Your task to perform on an android device: Go to sound settings Image 0: 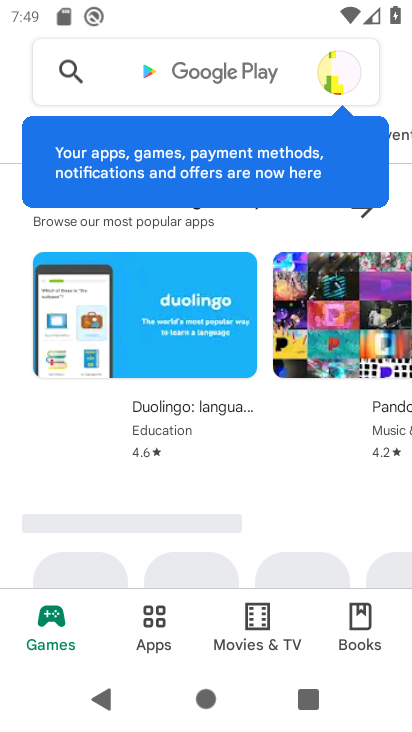
Step 0: press home button
Your task to perform on an android device: Go to sound settings Image 1: 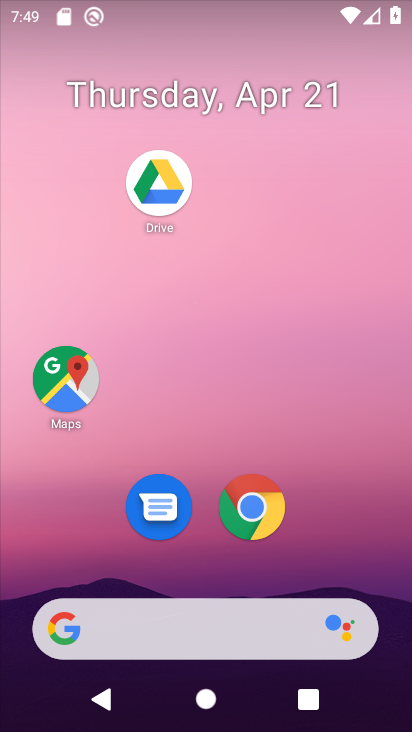
Step 1: drag from (367, 533) to (369, 119)
Your task to perform on an android device: Go to sound settings Image 2: 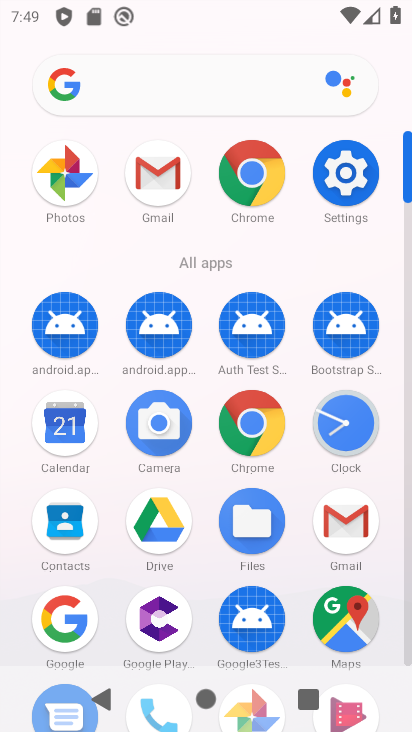
Step 2: click (340, 190)
Your task to perform on an android device: Go to sound settings Image 3: 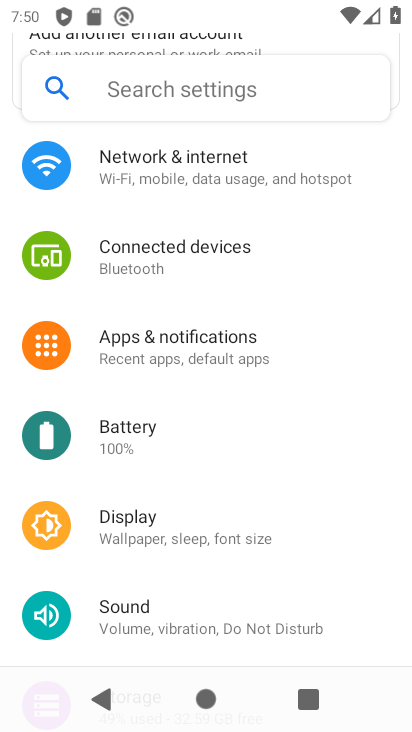
Step 3: drag from (336, 537) to (337, 351)
Your task to perform on an android device: Go to sound settings Image 4: 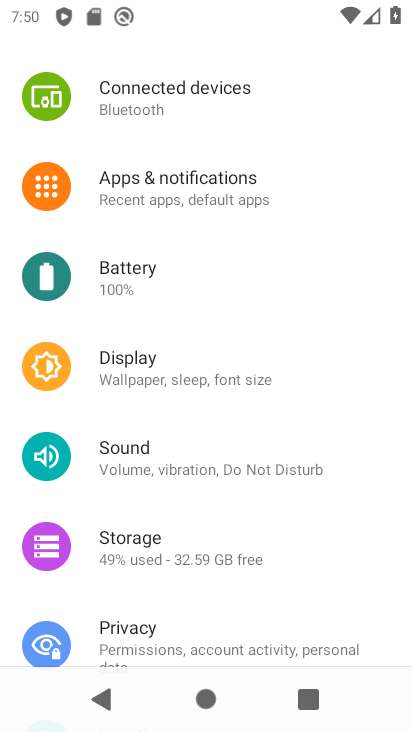
Step 4: drag from (343, 589) to (345, 387)
Your task to perform on an android device: Go to sound settings Image 5: 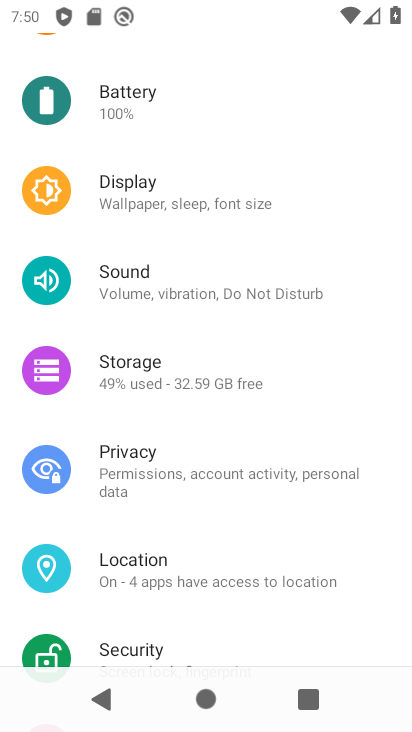
Step 5: drag from (353, 598) to (376, 357)
Your task to perform on an android device: Go to sound settings Image 6: 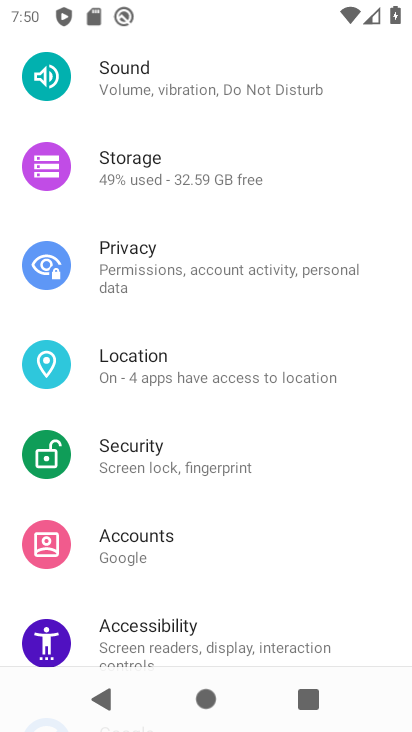
Step 6: drag from (359, 571) to (384, 273)
Your task to perform on an android device: Go to sound settings Image 7: 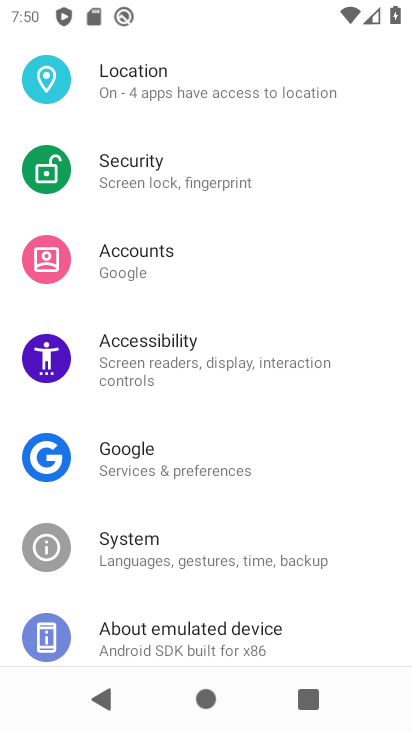
Step 7: drag from (380, 226) to (379, 489)
Your task to perform on an android device: Go to sound settings Image 8: 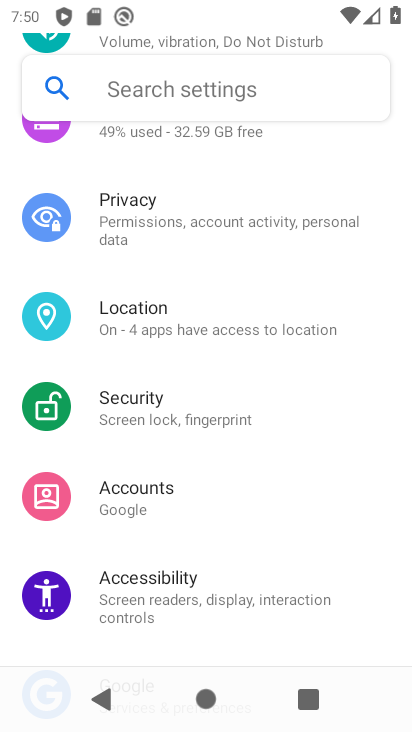
Step 8: drag from (376, 283) to (373, 467)
Your task to perform on an android device: Go to sound settings Image 9: 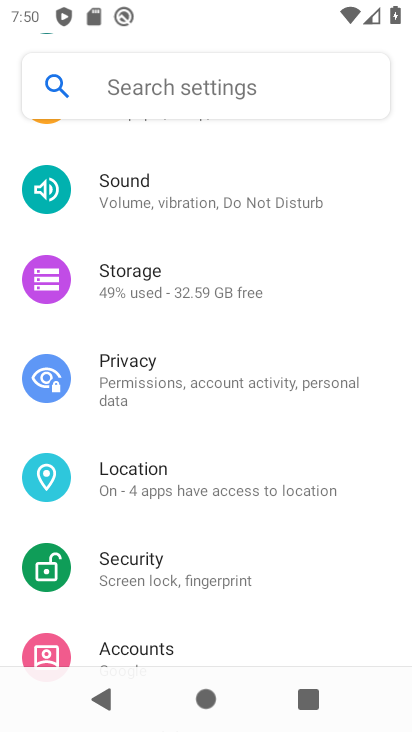
Step 9: drag from (372, 274) to (370, 477)
Your task to perform on an android device: Go to sound settings Image 10: 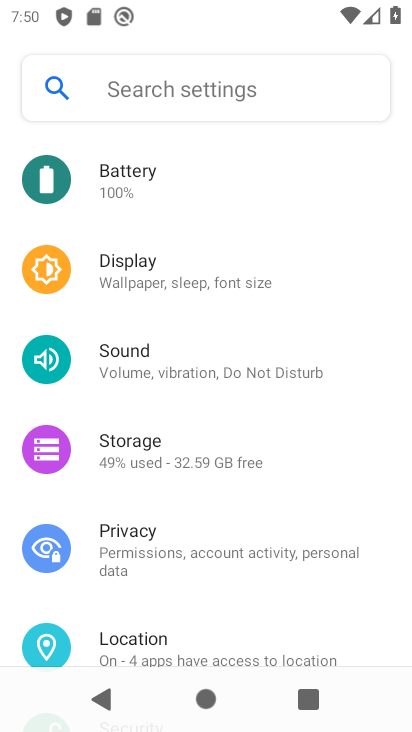
Step 10: drag from (367, 263) to (368, 375)
Your task to perform on an android device: Go to sound settings Image 11: 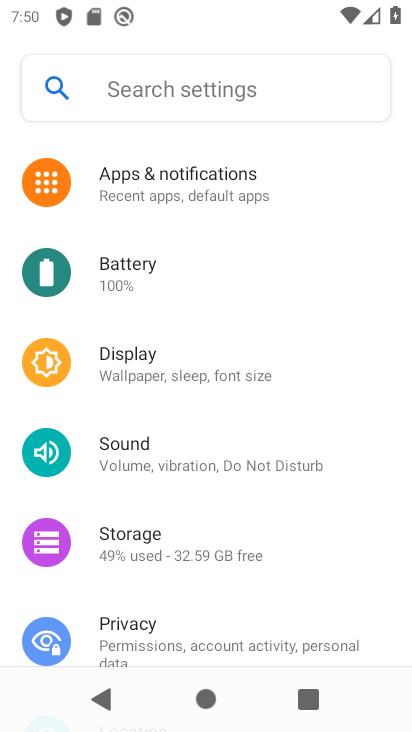
Step 11: click (303, 465)
Your task to perform on an android device: Go to sound settings Image 12: 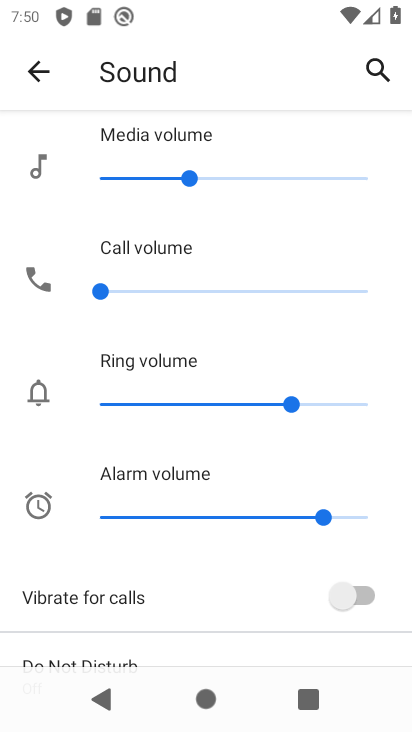
Step 12: task complete